Your task to perform on an android device: Search for "corsair k70" on bestbuy.com, select the first entry, add it to the cart, then select checkout. Image 0: 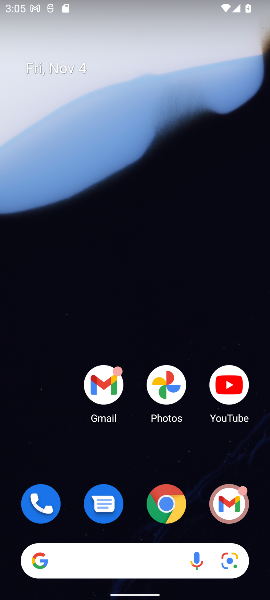
Step 0: click (160, 498)
Your task to perform on an android device: Search for "corsair k70" on bestbuy.com, select the first entry, add it to the cart, then select checkout. Image 1: 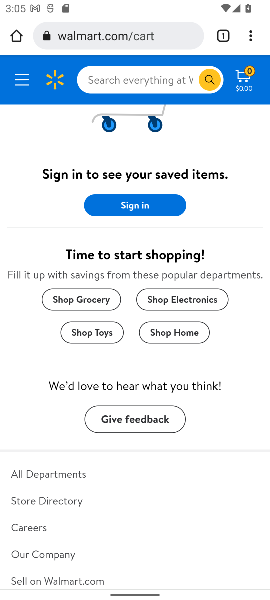
Step 1: click (115, 40)
Your task to perform on an android device: Search for "corsair k70" on bestbuy.com, select the first entry, add it to the cart, then select checkout. Image 2: 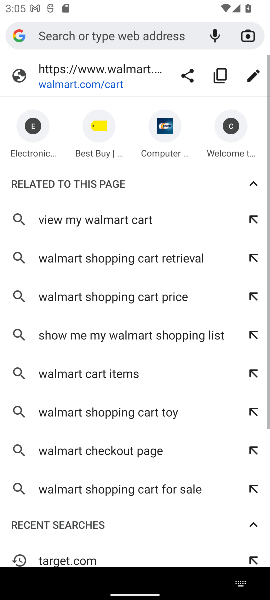
Step 2: click (97, 125)
Your task to perform on an android device: Search for "corsair k70" on bestbuy.com, select the first entry, add it to the cart, then select checkout. Image 3: 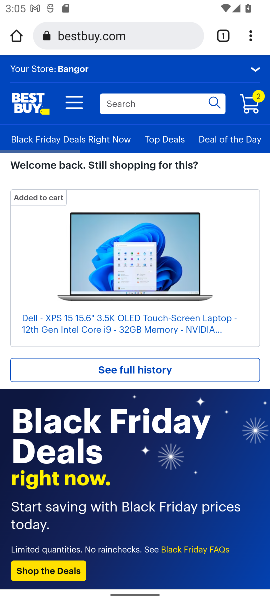
Step 3: click (125, 101)
Your task to perform on an android device: Search for "corsair k70" on bestbuy.com, select the first entry, add it to the cart, then select checkout. Image 4: 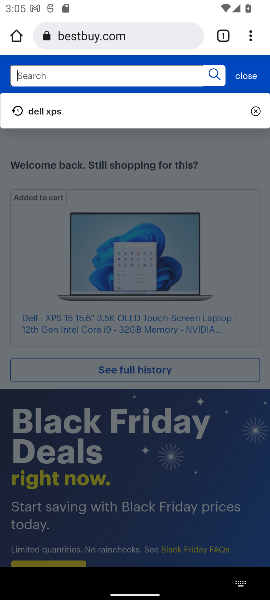
Step 4: type "corsair k70"
Your task to perform on an android device: Search for "corsair k70" on bestbuy.com, select the first entry, add it to the cart, then select checkout. Image 5: 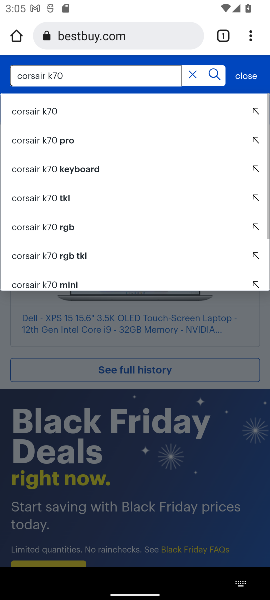
Step 5: click (41, 119)
Your task to perform on an android device: Search for "corsair k70" on bestbuy.com, select the first entry, add it to the cart, then select checkout. Image 6: 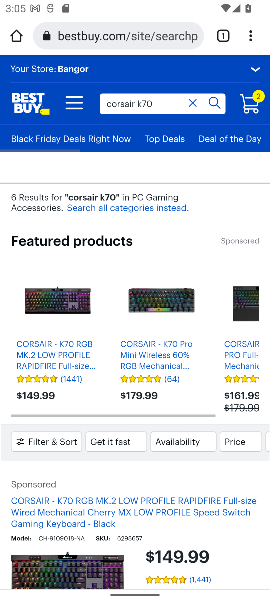
Step 6: drag from (103, 424) to (134, 265)
Your task to perform on an android device: Search for "corsair k70" on bestbuy.com, select the first entry, add it to the cart, then select checkout. Image 7: 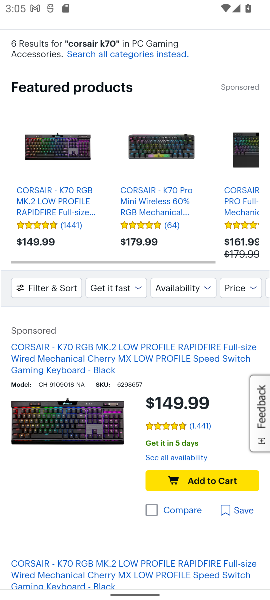
Step 7: click (188, 479)
Your task to perform on an android device: Search for "corsair k70" on bestbuy.com, select the first entry, add it to the cart, then select checkout. Image 8: 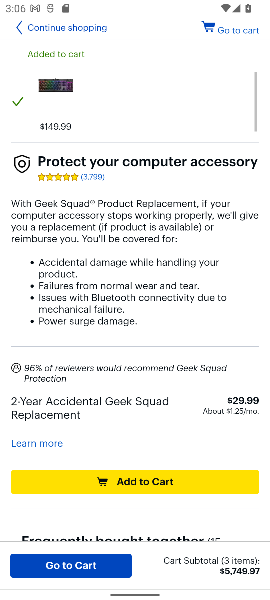
Step 8: click (244, 35)
Your task to perform on an android device: Search for "corsair k70" on bestbuy.com, select the first entry, add it to the cart, then select checkout. Image 9: 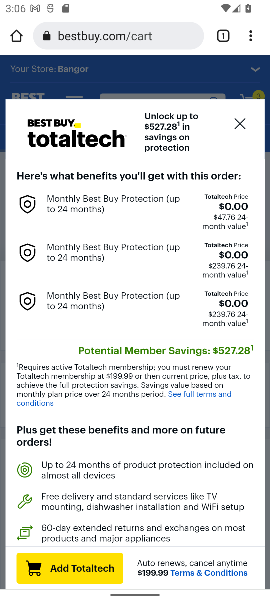
Step 9: click (242, 123)
Your task to perform on an android device: Search for "corsair k70" on bestbuy.com, select the first entry, add it to the cart, then select checkout. Image 10: 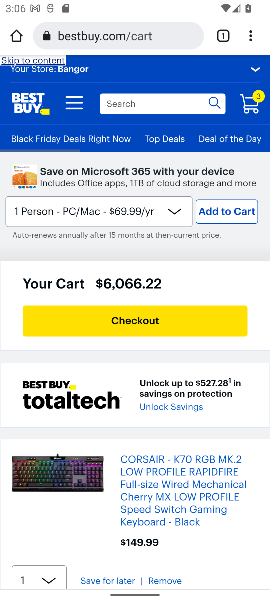
Step 10: click (128, 314)
Your task to perform on an android device: Search for "corsair k70" on bestbuy.com, select the first entry, add it to the cart, then select checkout. Image 11: 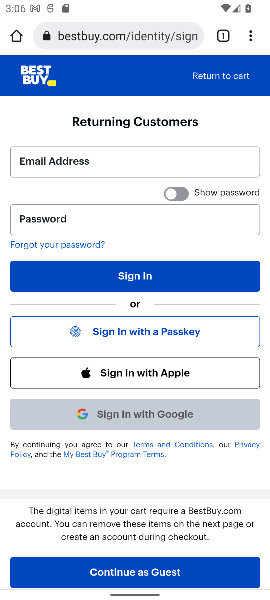
Step 11: task complete